Your task to perform on an android device: empty trash in google photos Image 0: 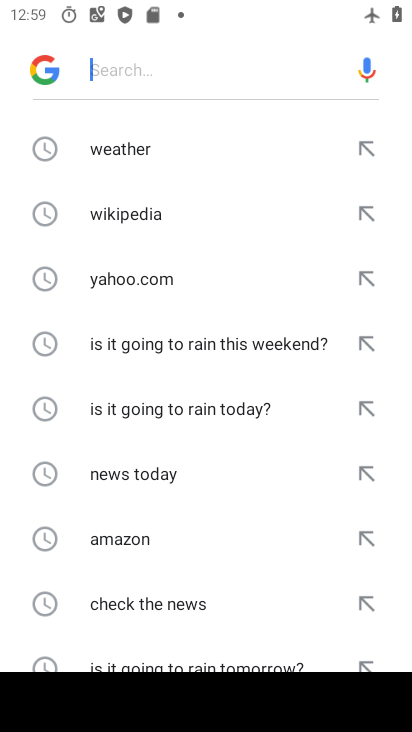
Step 0: press home button
Your task to perform on an android device: empty trash in google photos Image 1: 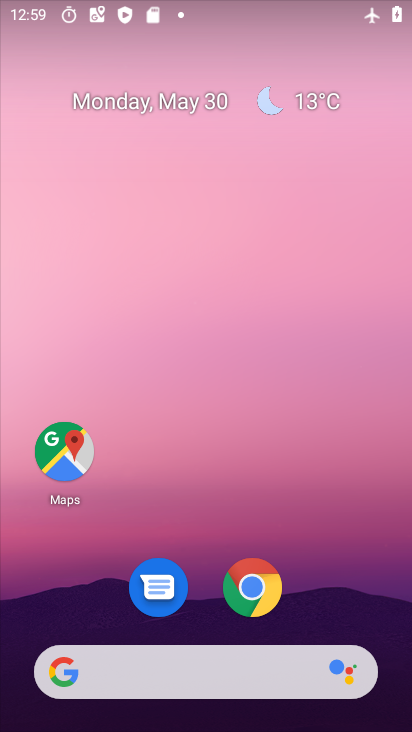
Step 1: drag from (350, 555) to (319, 69)
Your task to perform on an android device: empty trash in google photos Image 2: 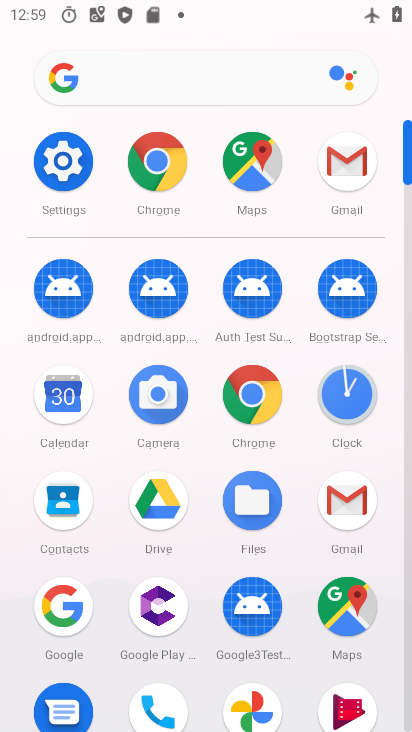
Step 2: drag from (322, 490) to (323, 121)
Your task to perform on an android device: empty trash in google photos Image 3: 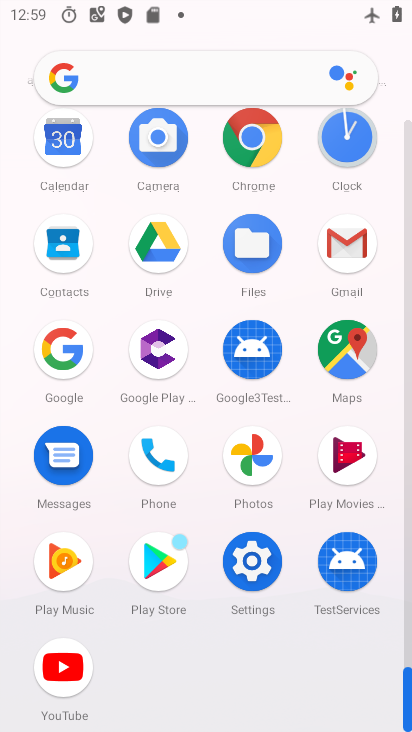
Step 3: click (255, 459)
Your task to perform on an android device: empty trash in google photos Image 4: 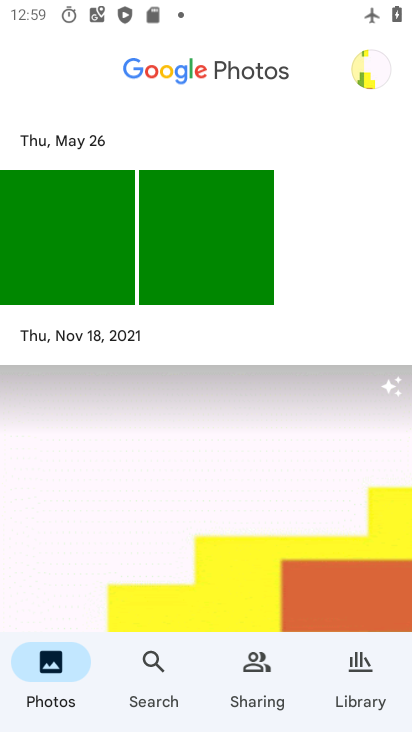
Step 4: click (382, 673)
Your task to perform on an android device: empty trash in google photos Image 5: 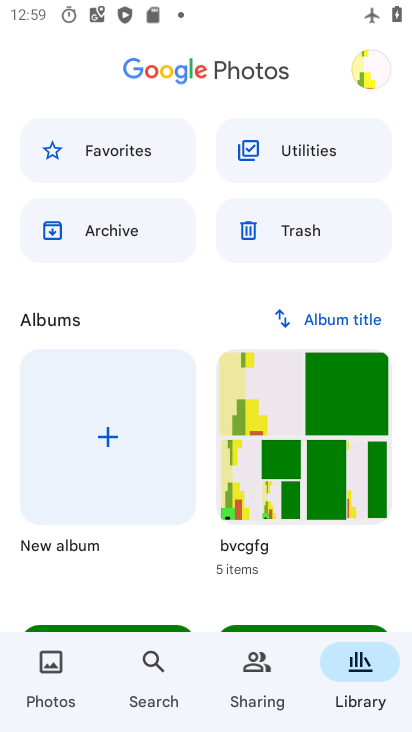
Step 5: click (326, 234)
Your task to perform on an android device: empty trash in google photos Image 6: 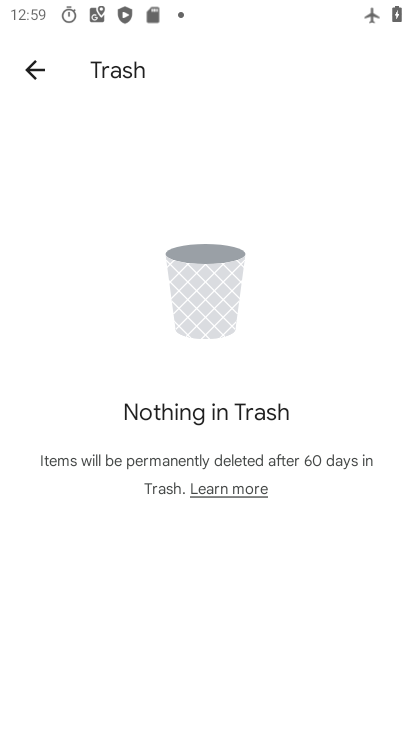
Step 6: task complete